Your task to perform on an android device: Open eBay Image 0: 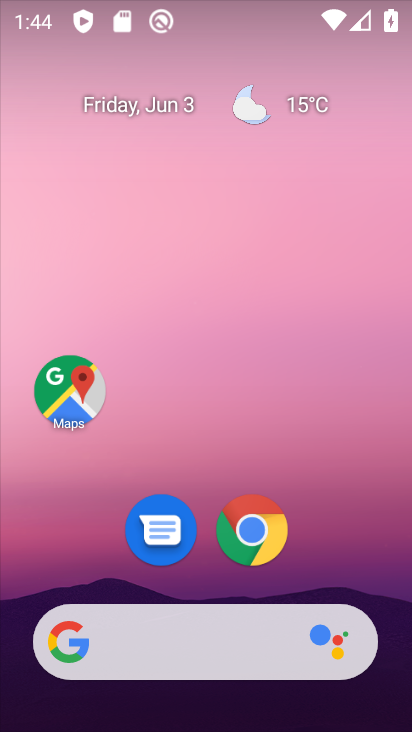
Step 0: click (251, 180)
Your task to perform on an android device: Open eBay Image 1: 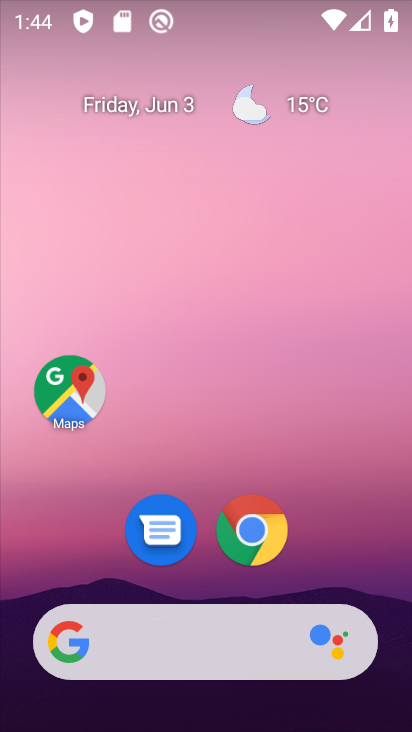
Step 1: click (208, 306)
Your task to perform on an android device: Open eBay Image 2: 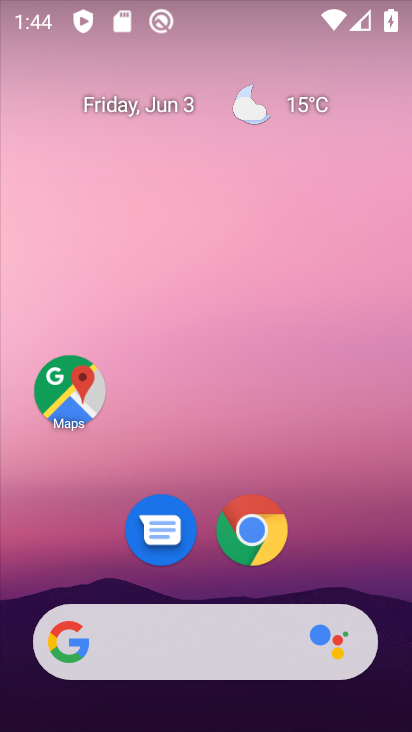
Step 2: click (253, 528)
Your task to perform on an android device: Open eBay Image 3: 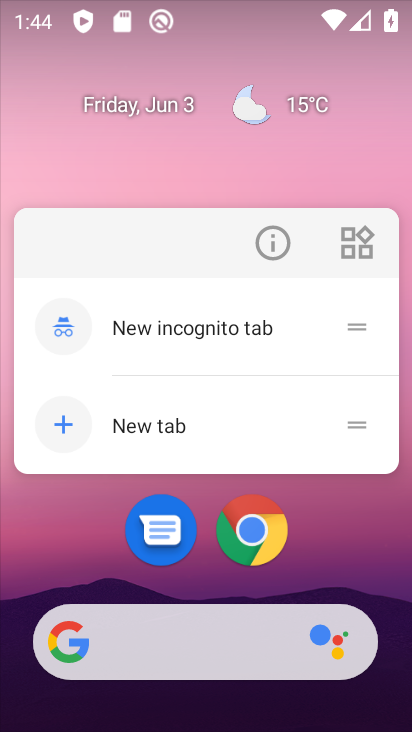
Step 3: click (253, 528)
Your task to perform on an android device: Open eBay Image 4: 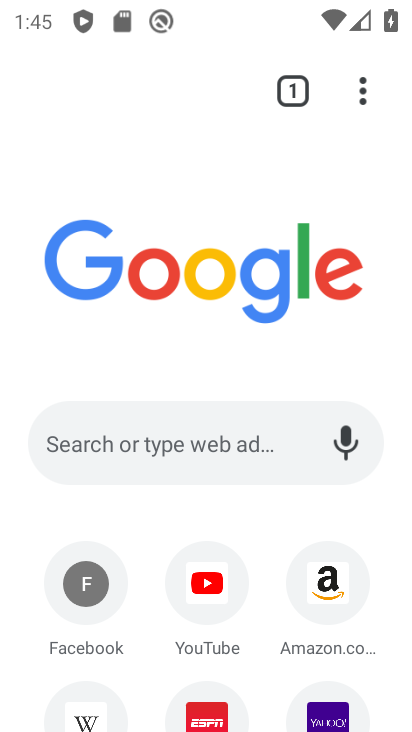
Step 4: drag from (298, 620) to (287, 242)
Your task to perform on an android device: Open eBay Image 5: 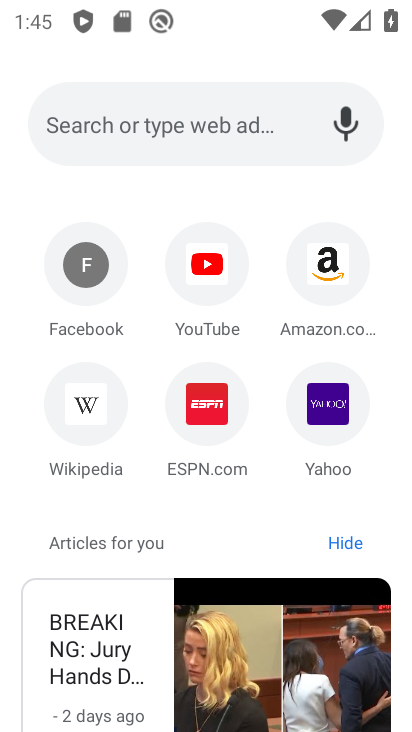
Step 5: drag from (218, 563) to (227, 279)
Your task to perform on an android device: Open eBay Image 6: 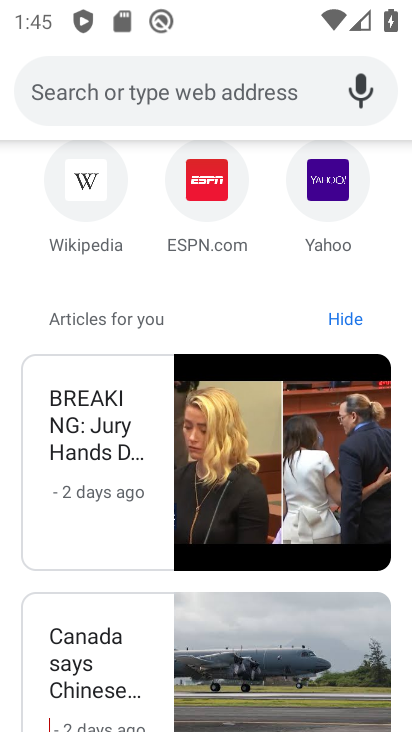
Step 6: drag from (152, 596) to (151, 395)
Your task to perform on an android device: Open eBay Image 7: 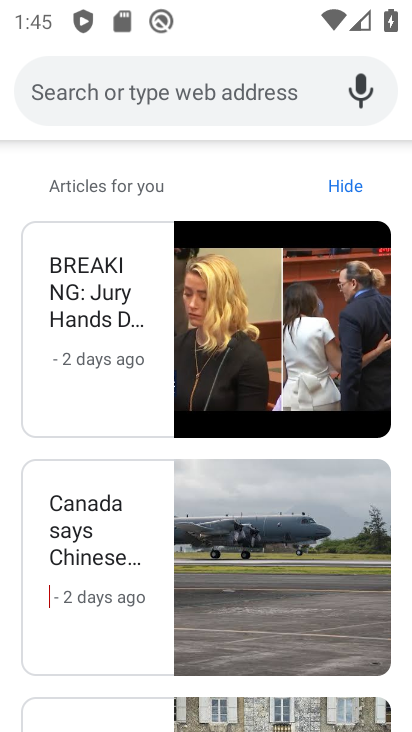
Step 7: press back button
Your task to perform on an android device: Open eBay Image 8: 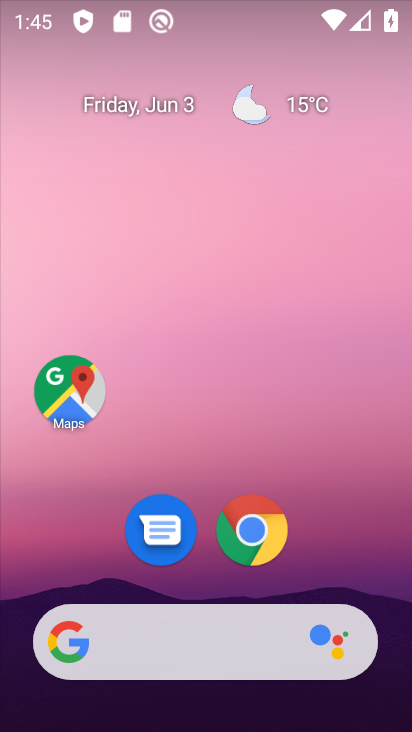
Step 8: drag from (322, 539) to (249, 116)
Your task to perform on an android device: Open eBay Image 9: 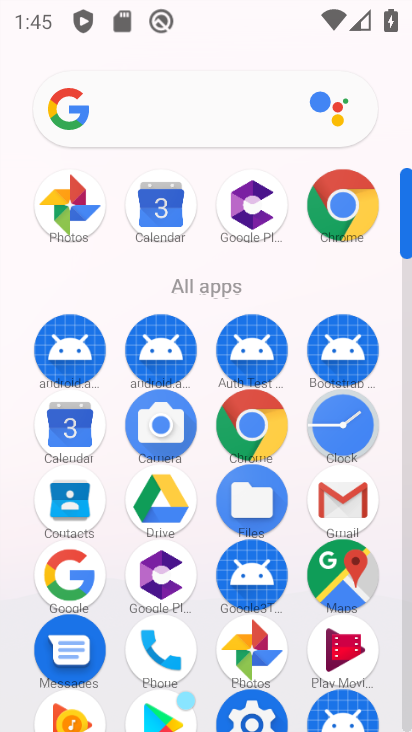
Step 9: click (341, 200)
Your task to perform on an android device: Open eBay Image 10: 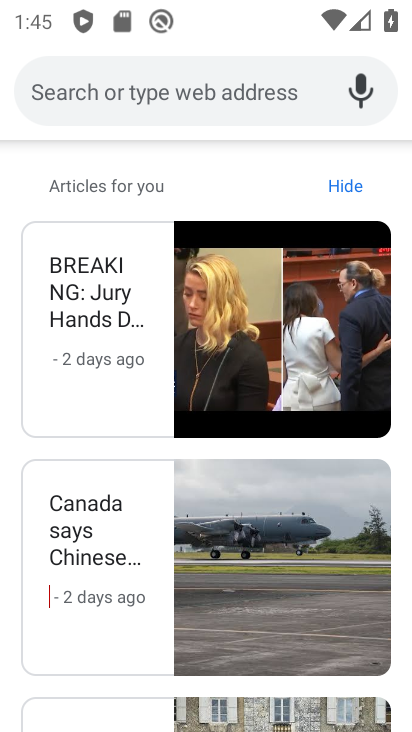
Step 10: press home button
Your task to perform on an android device: Open eBay Image 11: 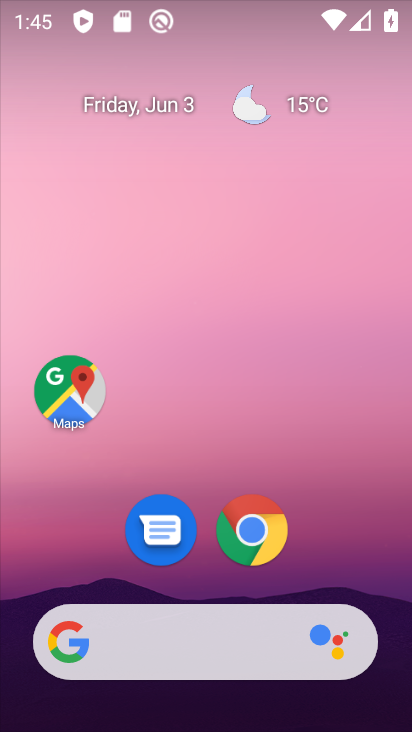
Step 11: click (252, 515)
Your task to perform on an android device: Open eBay Image 12: 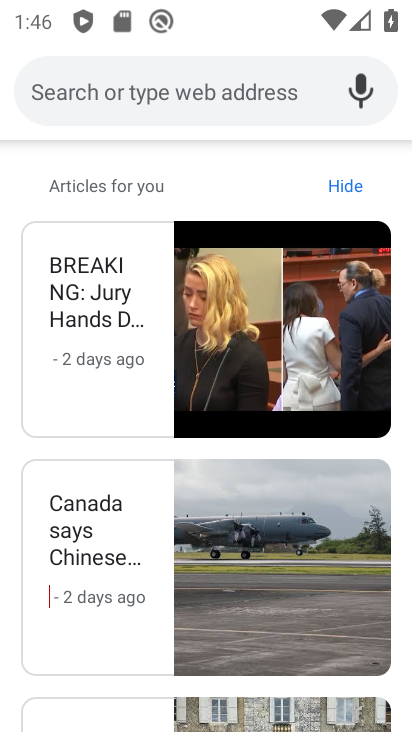
Step 12: click (200, 79)
Your task to perform on an android device: Open eBay Image 13: 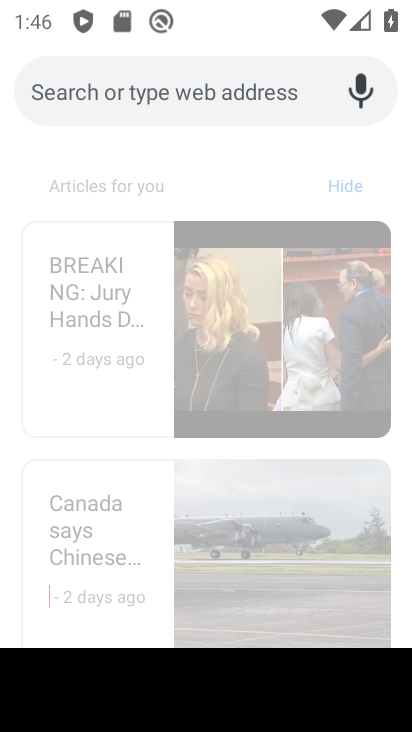
Step 13: type "www.ebay.com"
Your task to perform on an android device: Open eBay Image 14: 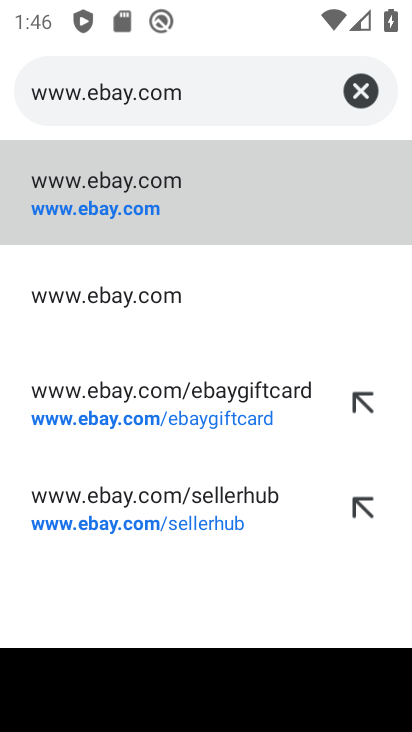
Step 14: click (92, 194)
Your task to perform on an android device: Open eBay Image 15: 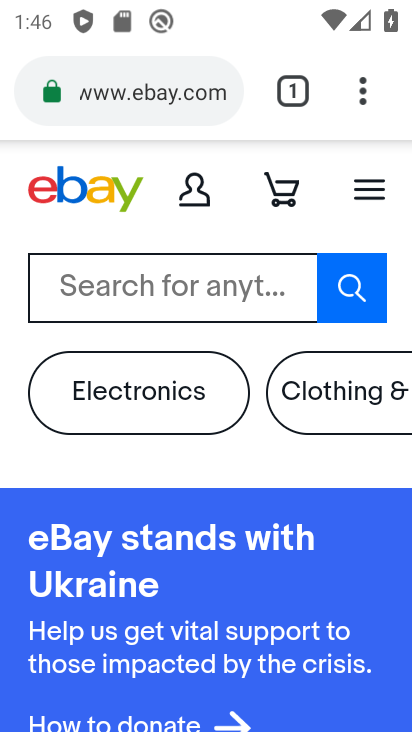
Step 15: task complete